Your task to perform on an android device: turn on showing notifications on the lock screen Image 0: 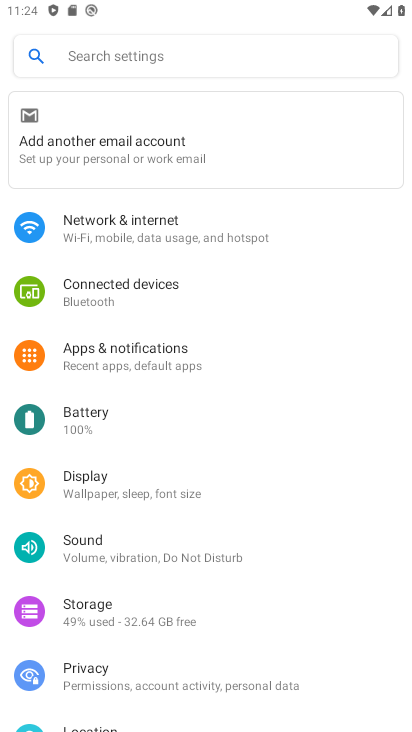
Step 0: press home button
Your task to perform on an android device: turn on showing notifications on the lock screen Image 1: 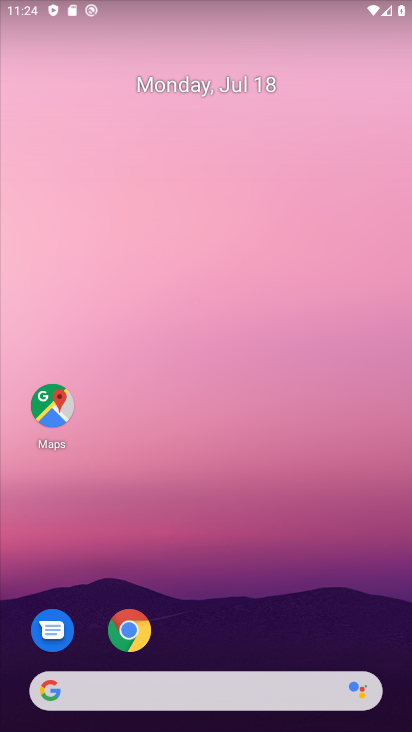
Step 1: click (155, 680)
Your task to perform on an android device: turn on showing notifications on the lock screen Image 2: 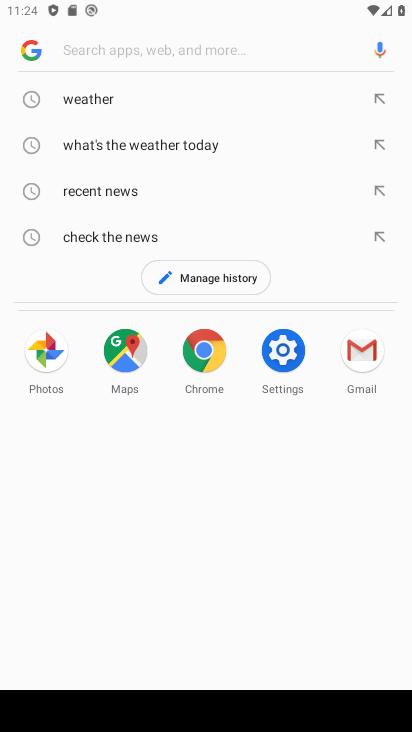
Step 2: click (107, 86)
Your task to perform on an android device: turn on showing notifications on the lock screen Image 3: 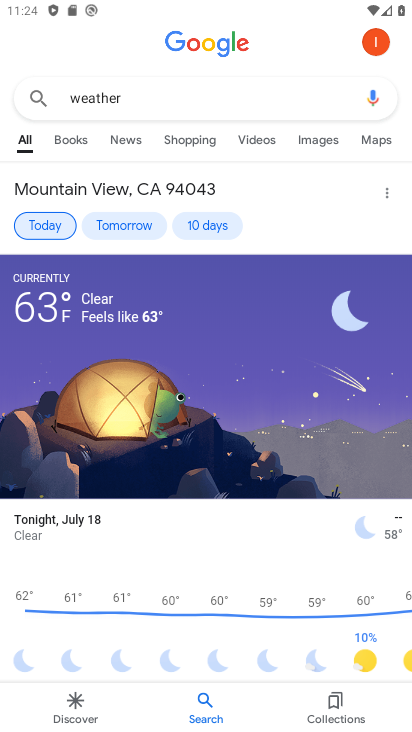
Step 3: press home button
Your task to perform on an android device: turn on showing notifications on the lock screen Image 4: 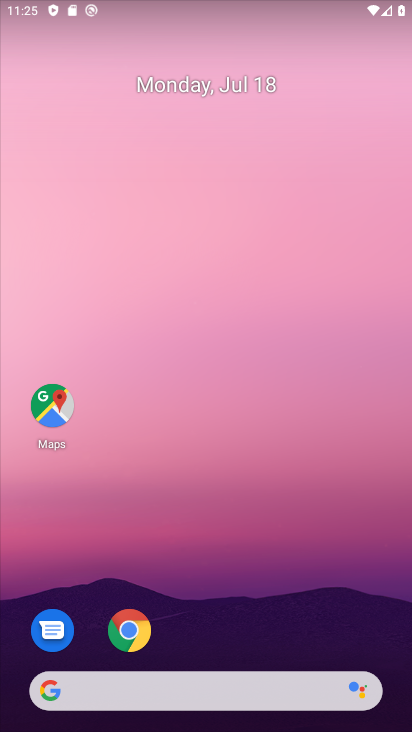
Step 4: drag from (257, 624) to (217, 139)
Your task to perform on an android device: turn on showing notifications on the lock screen Image 5: 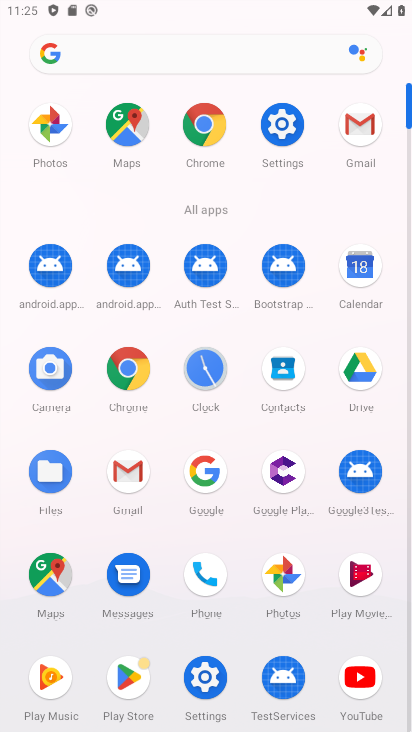
Step 5: click (191, 674)
Your task to perform on an android device: turn on showing notifications on the lock screen Image 6: 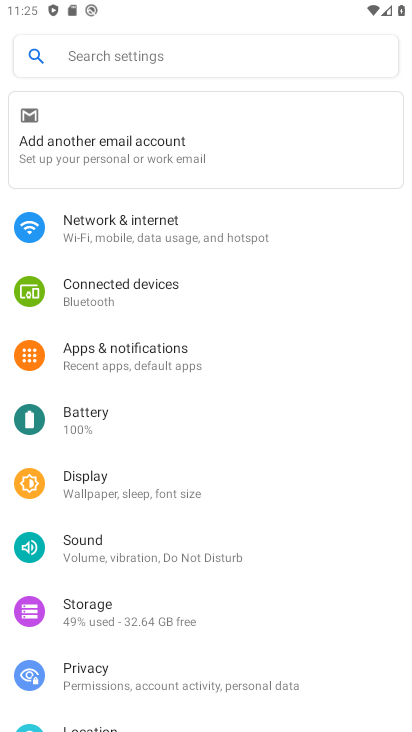
Step 6: click (83, 362)
Your task to perform on an android device: turn on showing notifications on the lock screen Image 7: 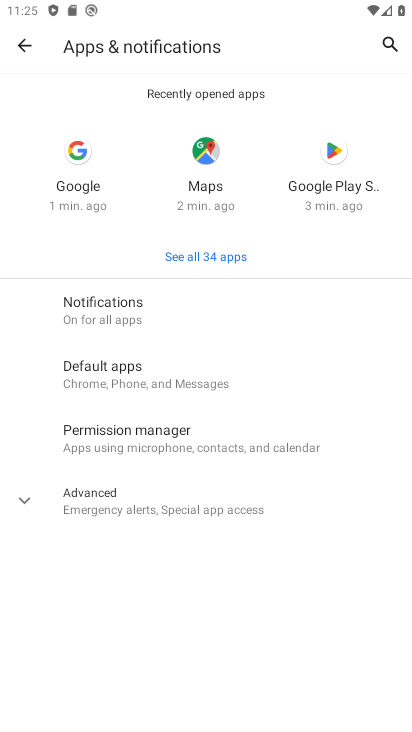
Step 7: click (114, 303)
Your task to perform on an android device: turn on showing notifications on the lock screen Image 8: 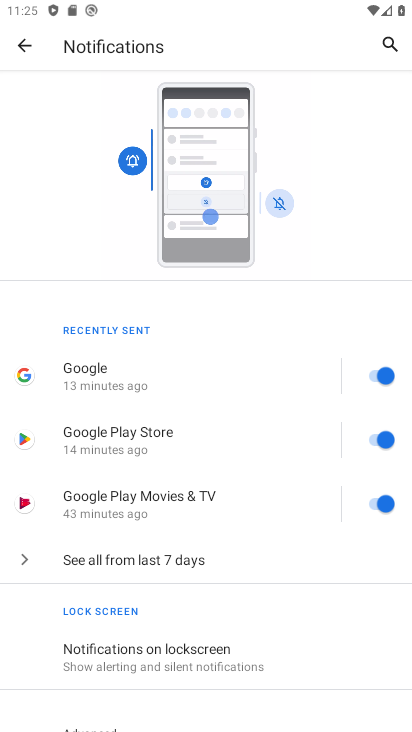
Step 8: click (148, 658)
Your task to perform on an android device: turn on showing notifications on the lock screen Image 9: 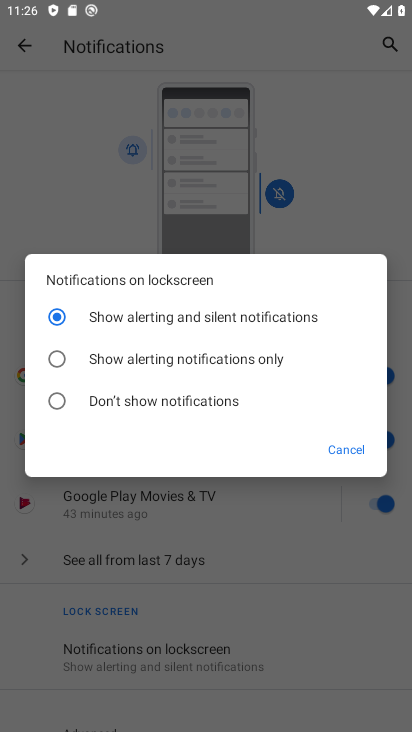
Step 9: click (135, 391)
Your task to perform on an android device: turn on showing notifications on the lock screen Image 10: 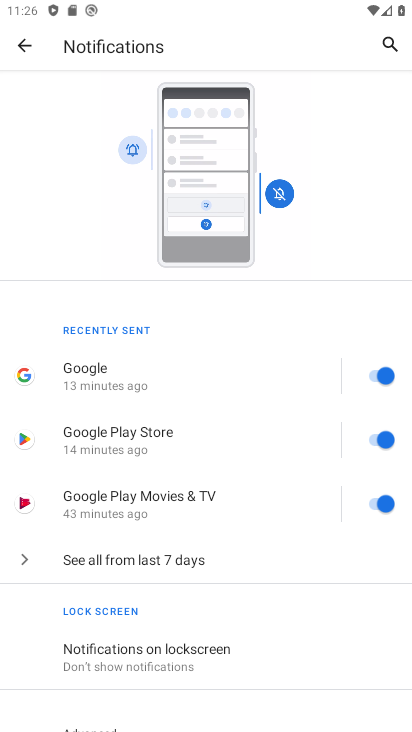
Step 10: click (141, 669)
Your task to perform on an android device: turn on showing notifications on the lock screen Image 11: 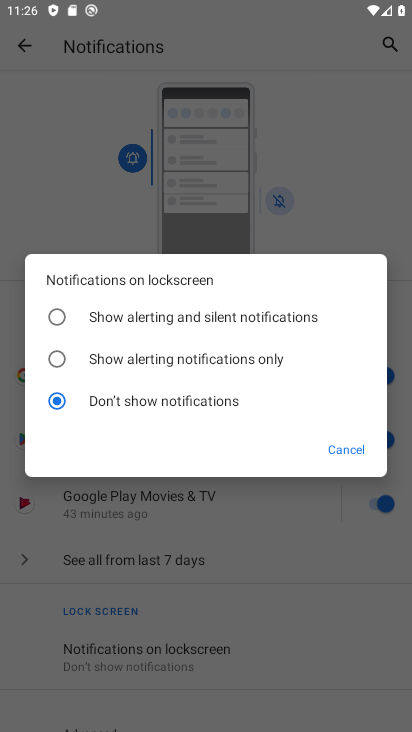
Step 11: click (161, 326)
Your task to perform on an android device: turn on showing notifications on the lock screen Image 12: 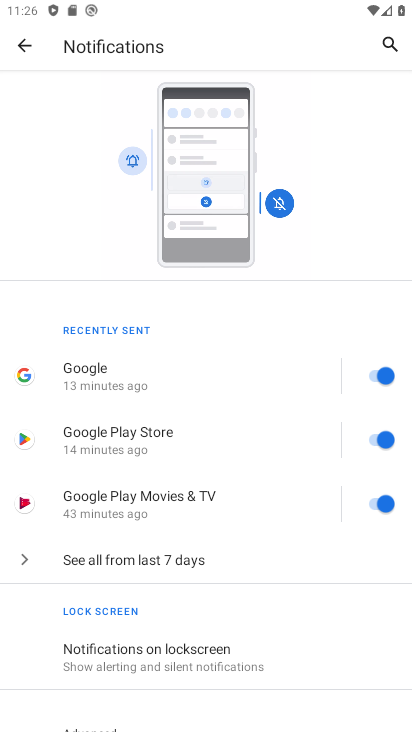
Step 12: click (149, 658)
Your task to perform on an android device: turn on showing notifications on the lock screen Image 13: 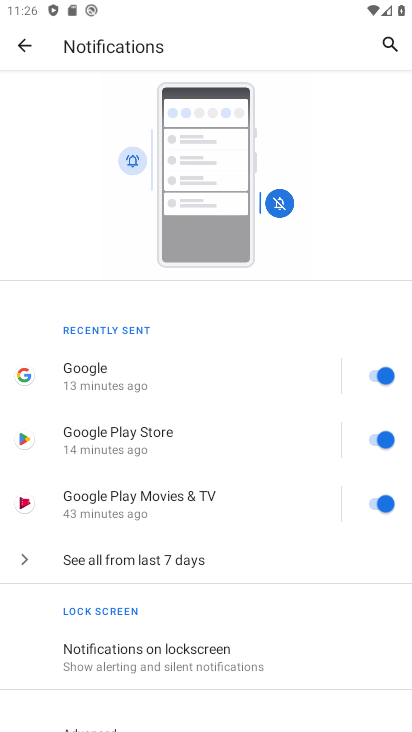
Step 13: task complete